Your task to perform on an android device: turn on sleep mode Image 0: 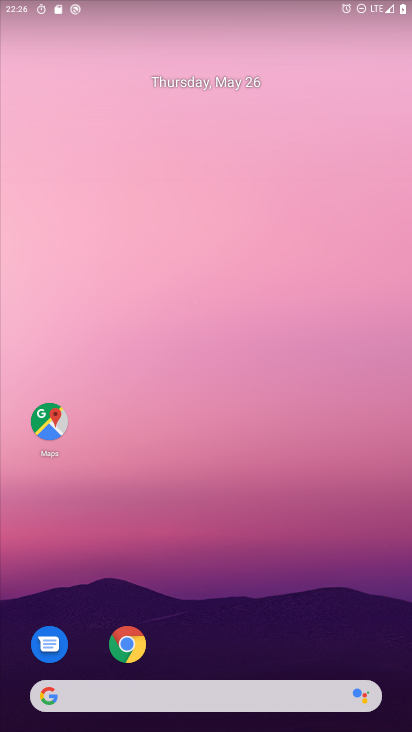
Step 0: drag from (186, 662) to (209, 103)
Your task to perform on an android device: turn on sleep mode Image 1: 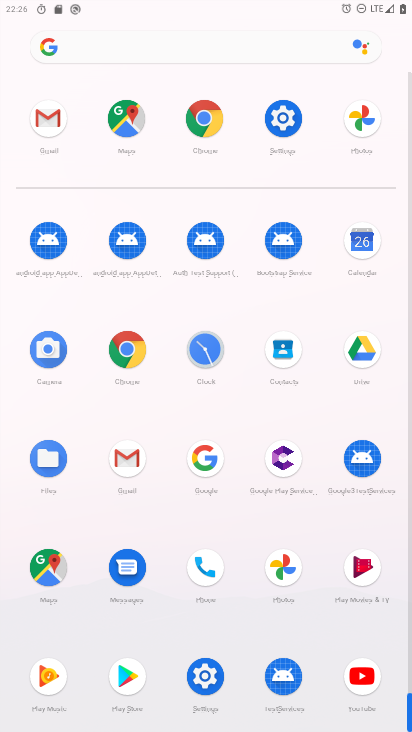
Step 1: click (282, 121)
Your task to perform on an android device: turn on sleep mode Image 2: 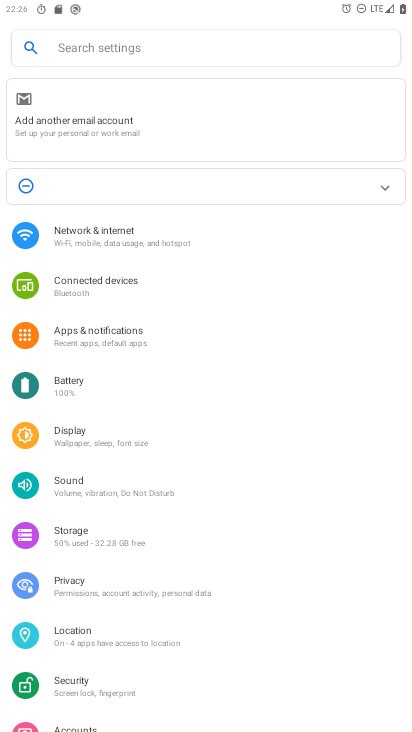
Step 2: click (89, 436)
Your task to perform on an android device: turn on sleep mode Image 3: 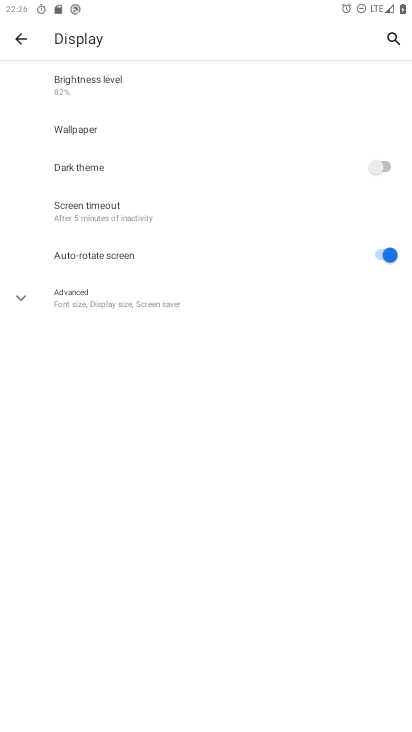
Step 3: click (159, 226)
Your task to perform on an android device: turn on sleep mode Image 4: 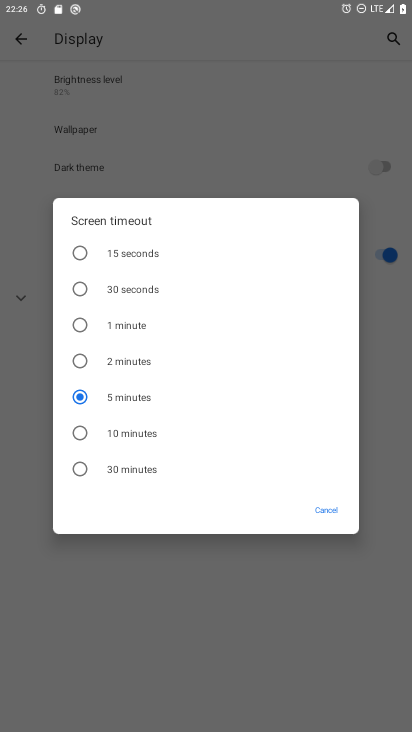
Step 4: task complete